Your task to perform on an android device: Go to ESPN.com Image 0: 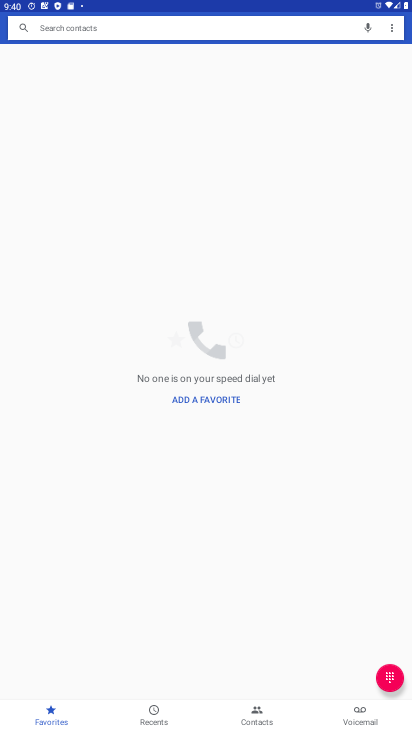
Step 0: press home button
Your task to perform on an android device: Go to ESPN.com Image 1: 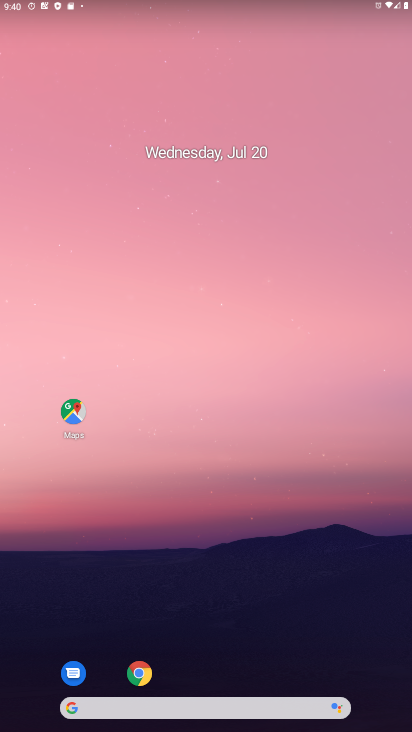
Step 1: drag from (207, 725) to (179, 251)
Your task to perform on an android device: Go to ESPN.com Image 2: 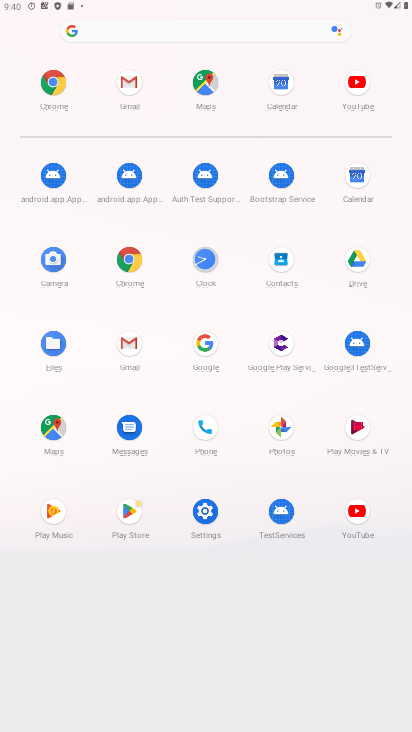
Step 2: click (125, 261)
Your task to perform on an android device: Go to ESPN.com Image 3: 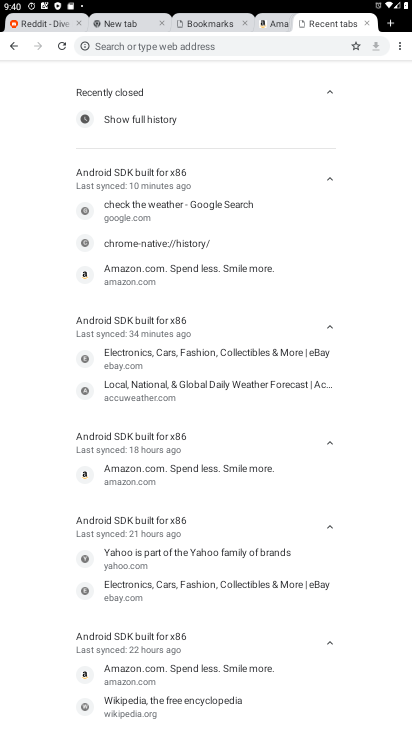
Step 3: click (399, 48)
Your task to perform on an android device: Go to ESPN.com Image 4: 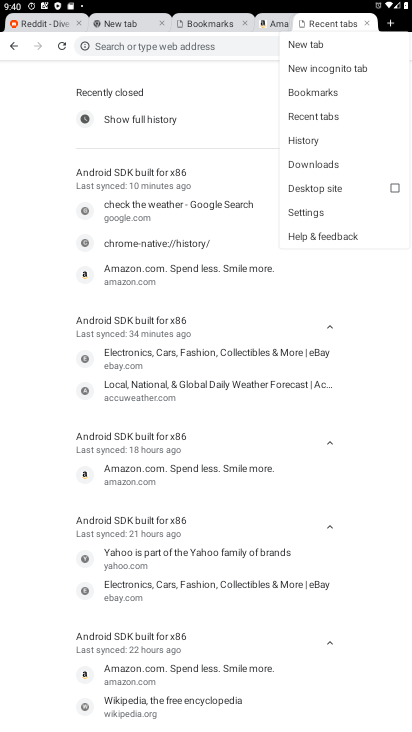
Step 4: click (298, 43)
Your task to perform on an android device: Go to ESPN.com Image 5: 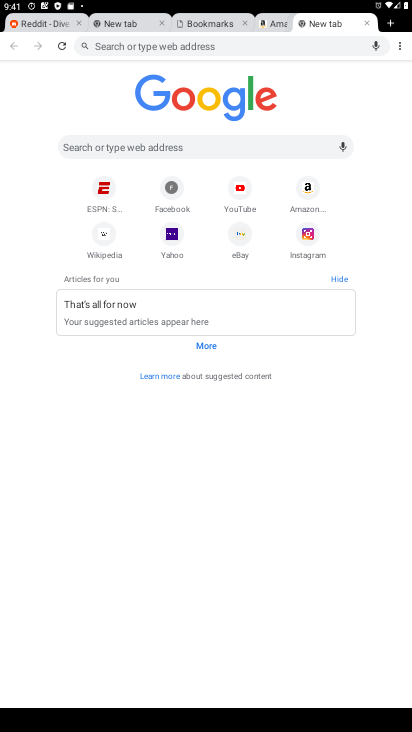
Step 5: click (105, 195)
Your task to perform on an android device: Go to ESPN.com Image 6: 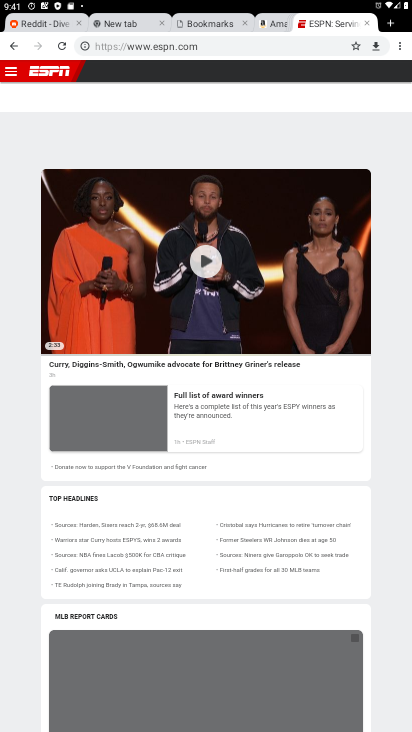
Step 6: task complete